Your task to perform on an android device: Is it going to rain tomorrow? Image 0: 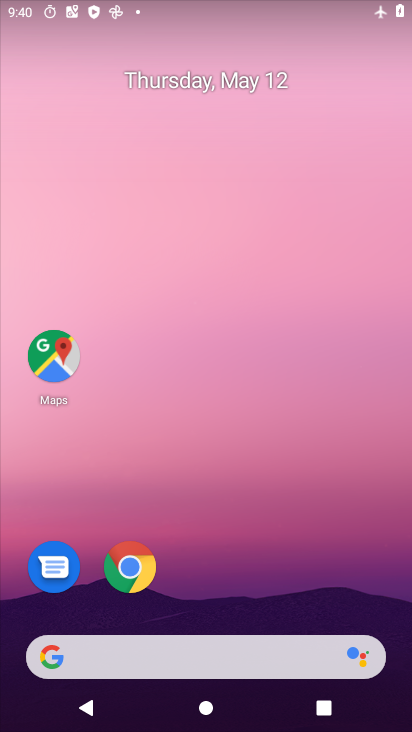
Step 0: drag from (203, 648) to (278, 134)
Your task to perform on an android device: Is it going to rain tomorrow? Image 1: 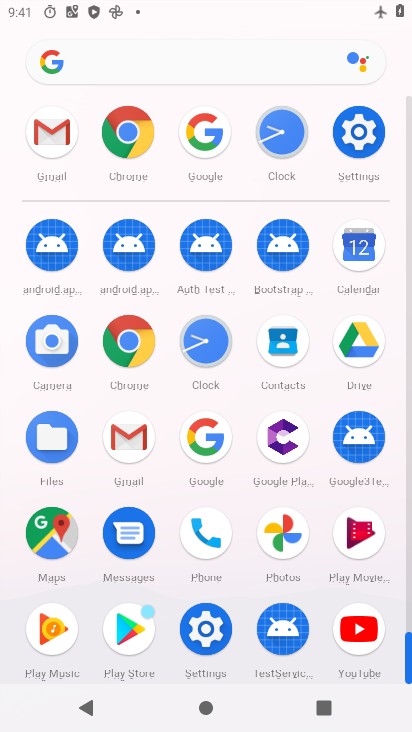
Step 1: click (194, 437)
Your task to perform on an android device: Is it going to rain tomorrow? Image 2: 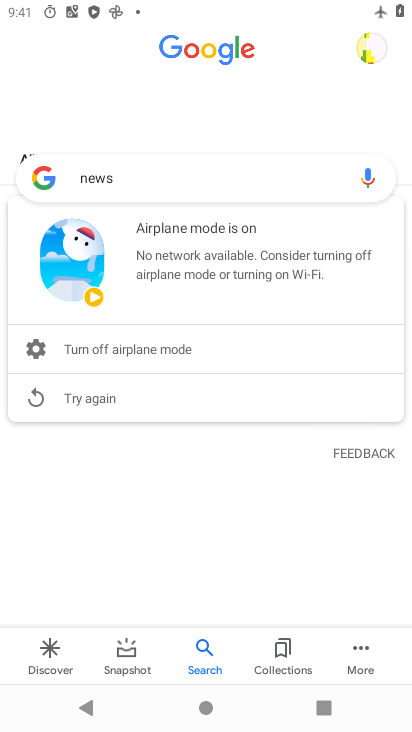
Step 2: click (220, 168)
Your task to perform on an android device: Is it going to rain tomorrow? Image 3: 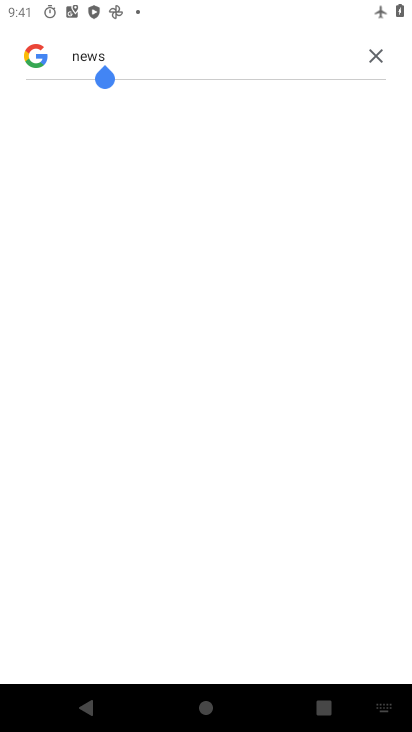
Step 3: click (385, 59)
Your task to perform on an android device: Is it going to rain tomorrow? Image 4: 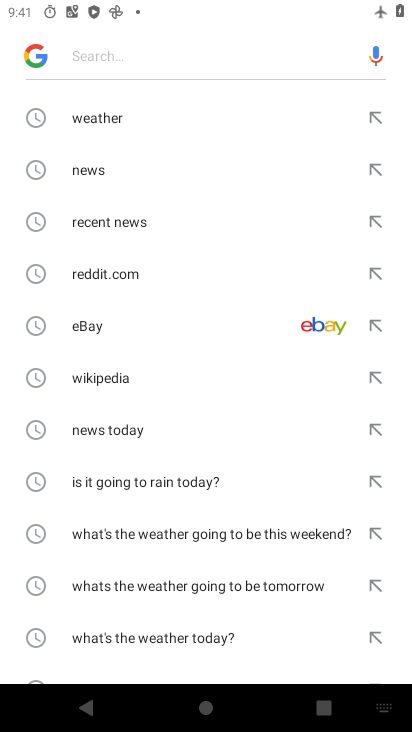
Step 4: click (202, 127)
Your task to perform on an android device: Is it going to rain tomorrow? Image 5: 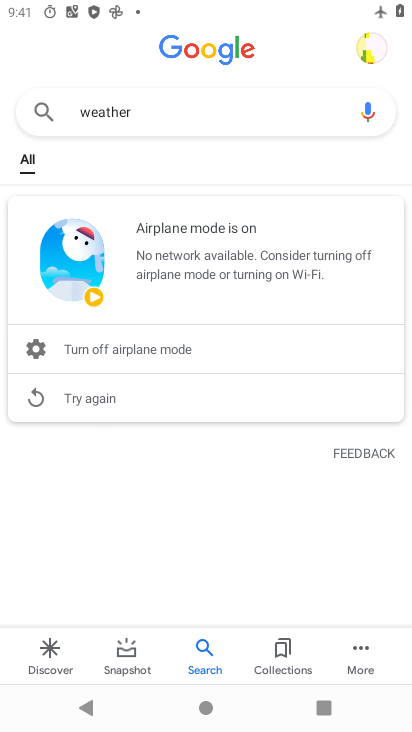
Step 5: task complete